Your task to perform on an android device: open app "Mercado Libre" (install if not already installed) Image 0: 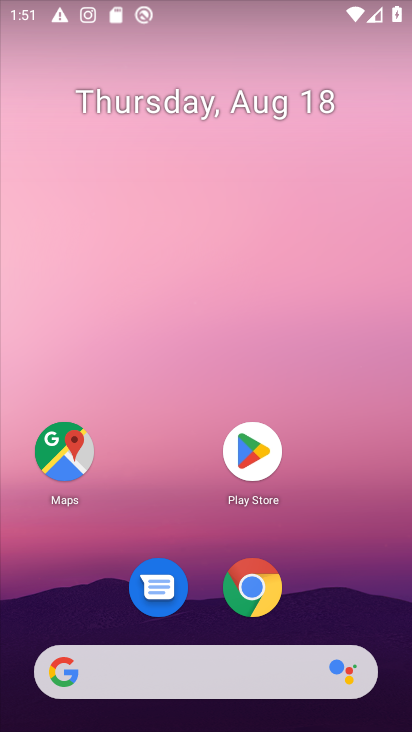
Step 0: click (260, 451)
Your task to perform on an android device: open app "Mercado Libre" (install if not already installed) Image 1: 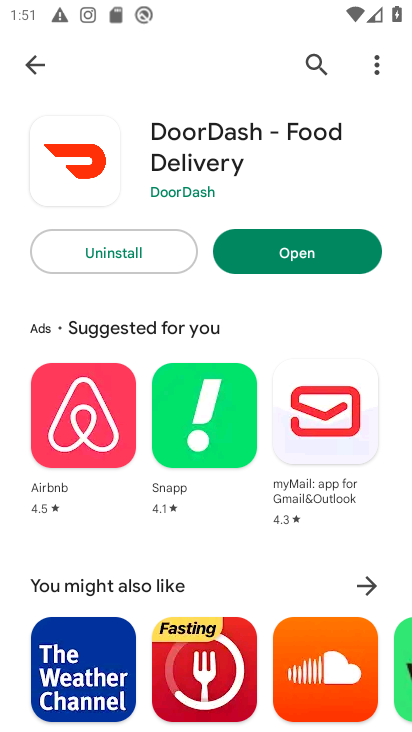
Step 1: click (312, 58)
Your task to perform on an android device: open app "Mercado Libre" (install if not already installed) Image 2: 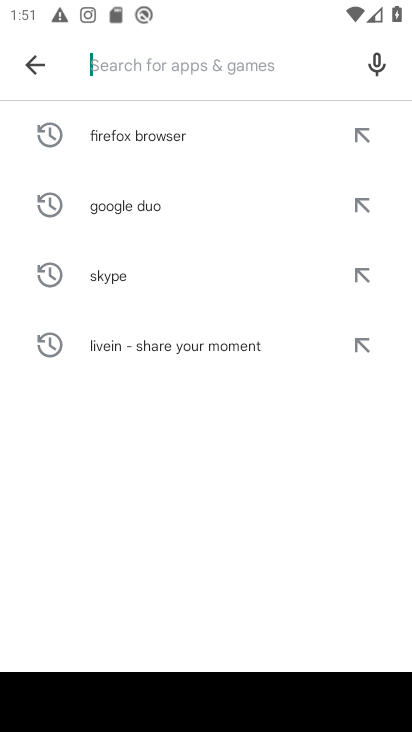
Step 2: type "Mercado Libre"
Your task to perform on an android device: open app "Mercado Libre" (install if not already installed) Image 3: 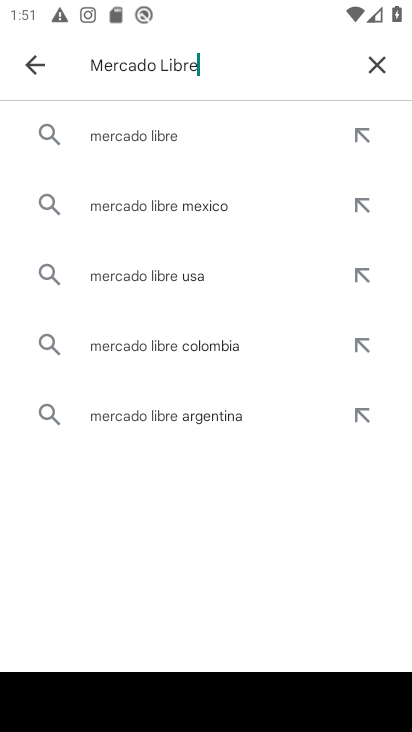
Step 3: click (165, 133)
Your task to perform on an android device: open app "Mercado Libre" (install if not already installed) Image 4: 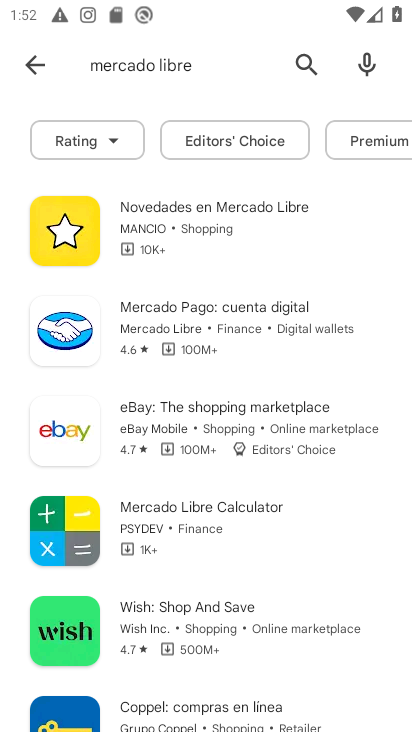
Step 4: task complete